Your task to perform on an android device: Go to privacy settings Image 0: 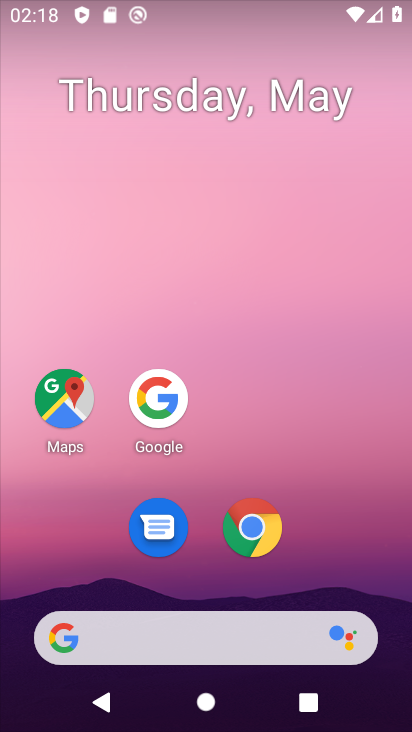
Step 0: drag from (198, 582) to (205, 306)
Your task to perform on an android device: Go to privacy settings Image 1: 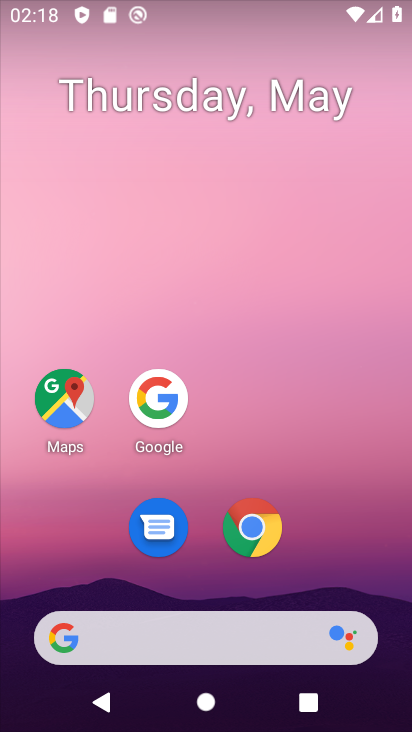
Step 1: drag from (194, 579) to (290, 6)
Your task to perform on an android device: Go to privacy settings Image 2: 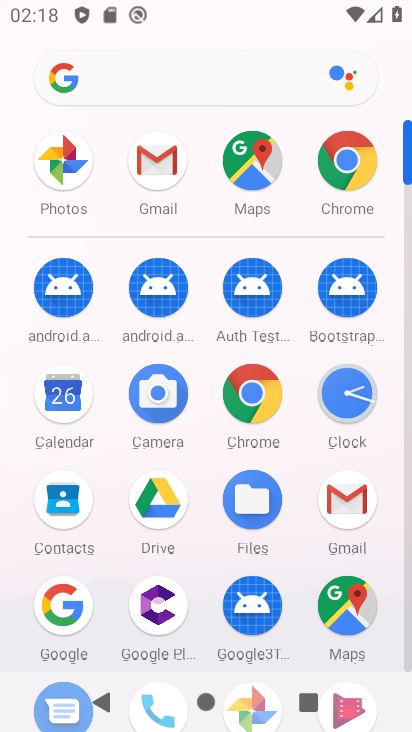
Step 2: drag from (200, 592) to (203, 197)
Your task to perform on an android device: Go to privacy settings Image 3: 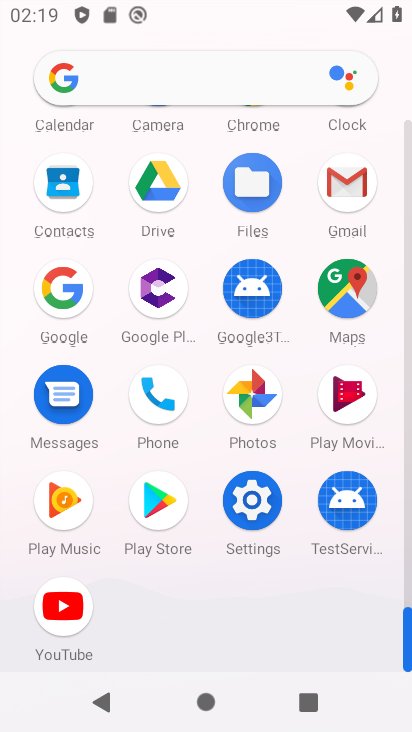
Step 3: click (245, 492)
Your task to perform on an android device: Go to privacy settings Image 4: 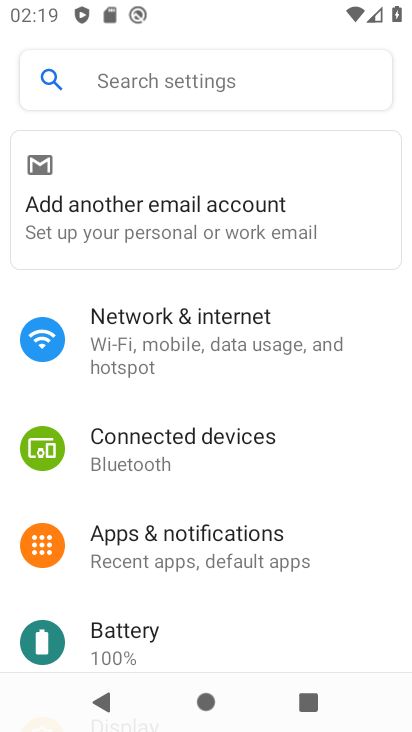
Step 4: drag from (194, 570) to (237, 164)
Your task to perform on an android device: Go to privacy settings Image 5: 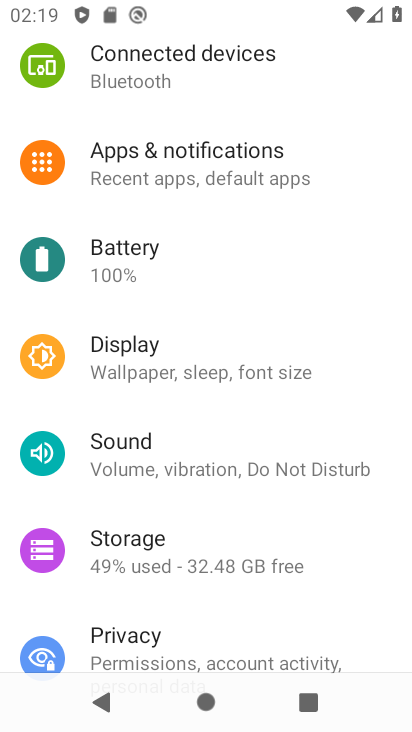
Step 5: click (153, 651)
Your task to perform on an android device: Go to privacy settings Image 6: 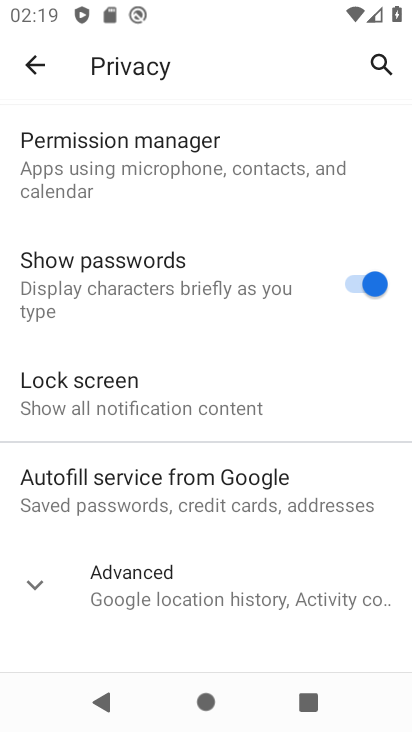
Step 6: task complete